Your task to perform on an android device: Open Chrome and go to the settings page Image 0: 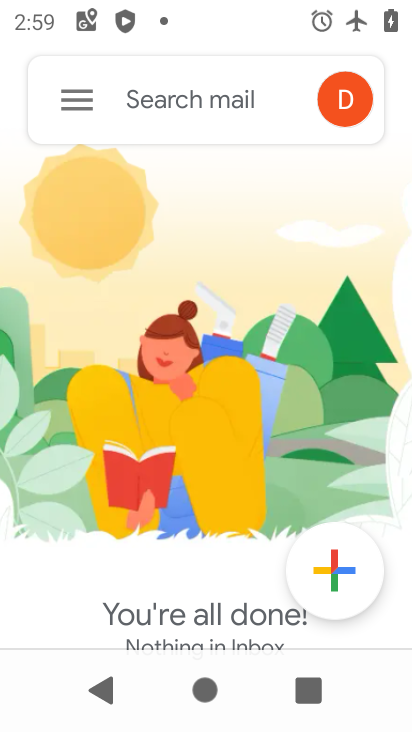
Step 0: press home button
Your task to perform on an android device: Open Chrome and go to the settings page Image 1: 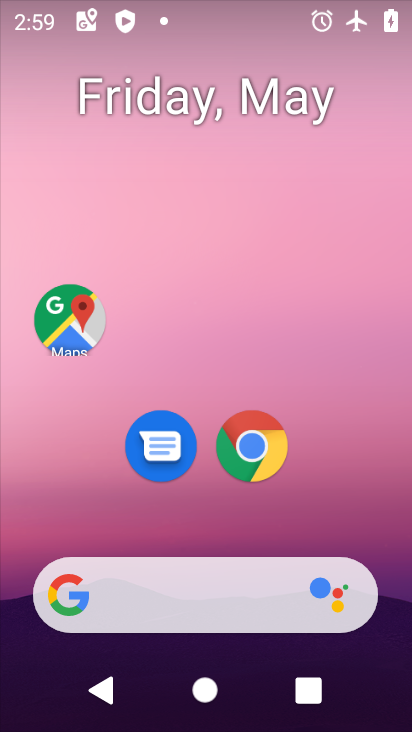
Step 1: click (252, 456)
Your task to perform on an android device: Open Chrome and go to the settings page Image 2: 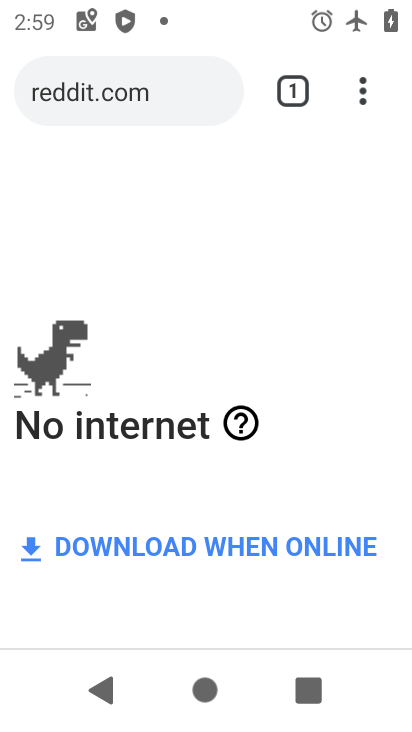
Step 2: click (351, 100)
Your task to perform on an android device: Open Chrome and go to the settings page Image 3: 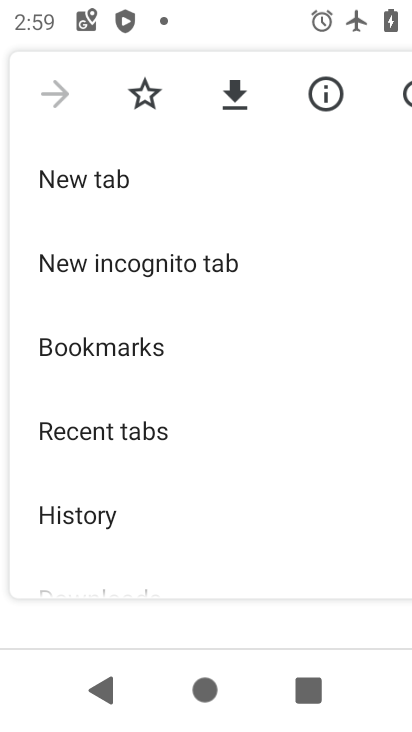
Step 3: drag from (163, 525) to (150, 128)
Your task to perform on an android device: Open Chrome and go to the settings page Image 4: 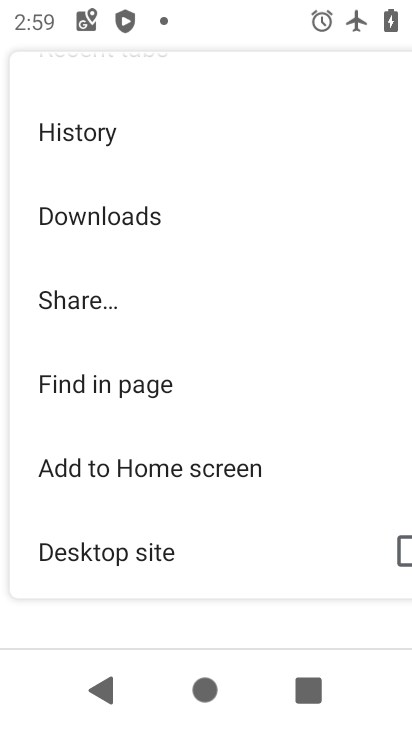
Step 4: drag from (183, 562) to (164, 146)
Your task to perform on an android device: Open Chrome and go to the settings page Image 5: 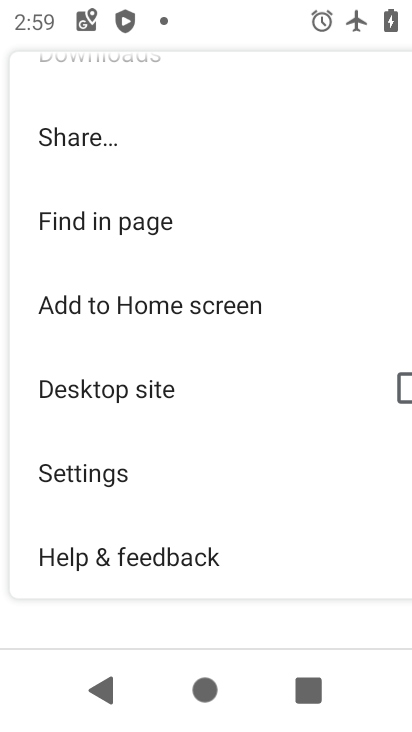
Step 5: click (181, 465)
Your task to perform on an android device: Open Chrome and go to the settings page Image 6: 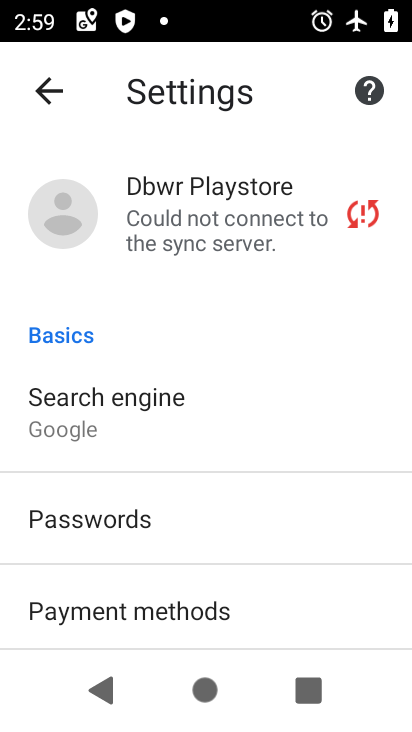
Step 6: task complete